Your task to perform on an android device: Go to Yahoo.com Image 0: 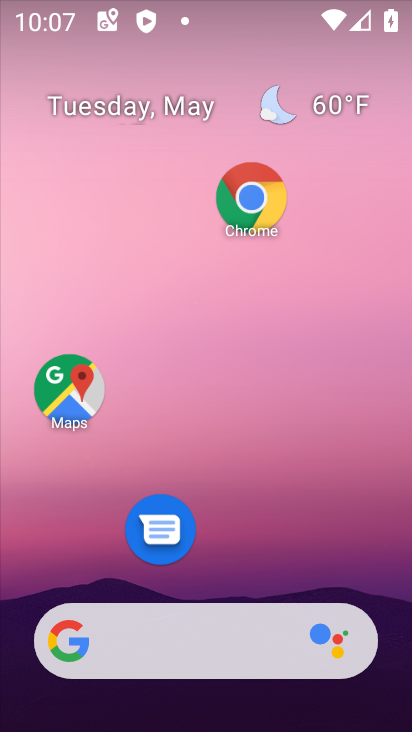
Step 0: click (234, 190)
Your task to perform on an android device: Go to Yahoo.com Image 1: 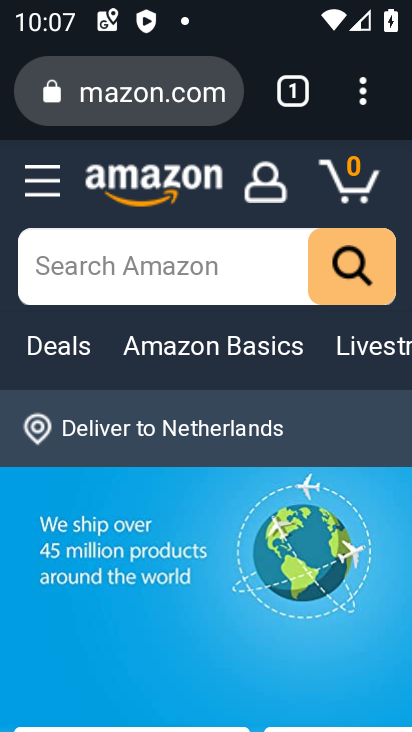
Step 1: click (276, 94)
Your task to perform on an android device: Go to Yahoo.com Image 2: 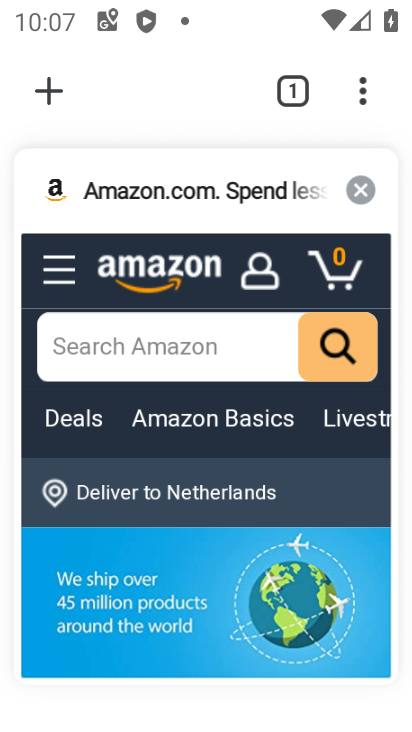
Step 2: click (355, 185)
Your task to perform on an android device: Go to Yahoo.com Image 3: 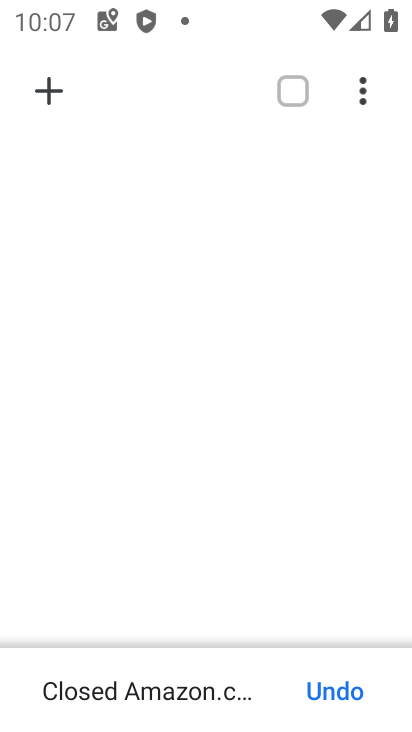
Step 3: click (52, 91)
Your task to perform on an android device: Go to Yahoo.com Image 4: 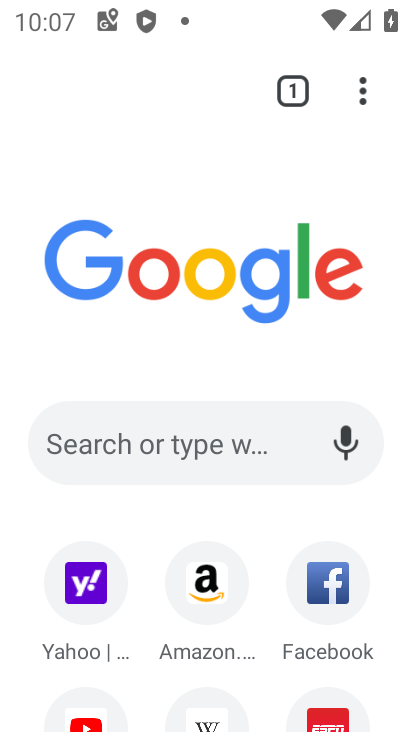
Step 4: click (77, 576)
Your task to perform on an android device: Go to Yahoo.com Image 5: 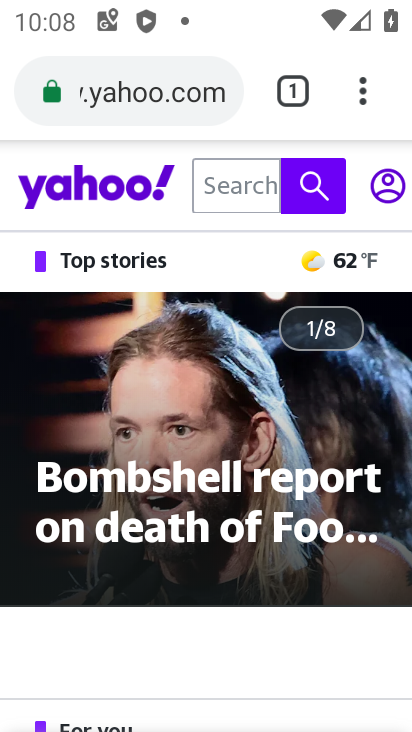
Step 5: task complete